Your task to perform on an android device: open wifi settings Image 0: 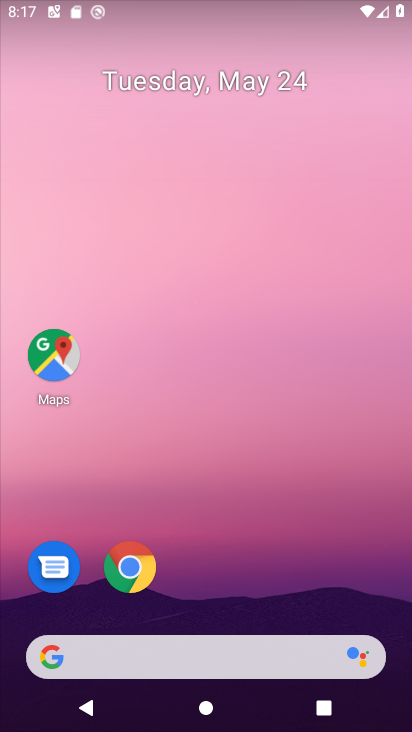
Step 0: drag from (286, 555) to (223, 71)
Your task to perform on an android device: open wifi settings Image 1: 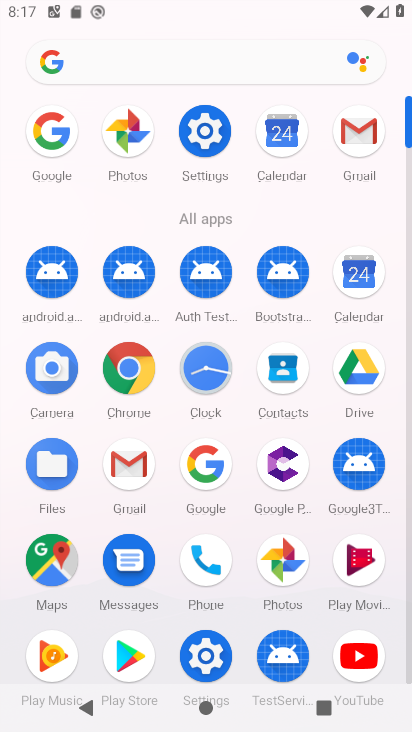
Step 1: click (204, 135)
Your task to perform on an android device: open wifi settings Image 2: 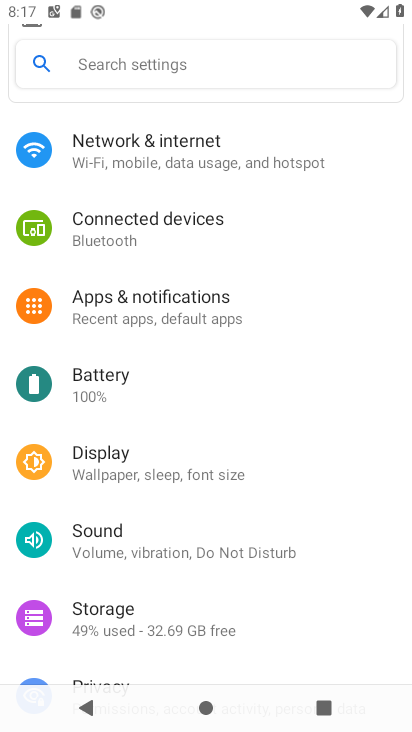
Step 2: click (204, 152)
Your task to perform on an android device: open wifi settings Image 3: 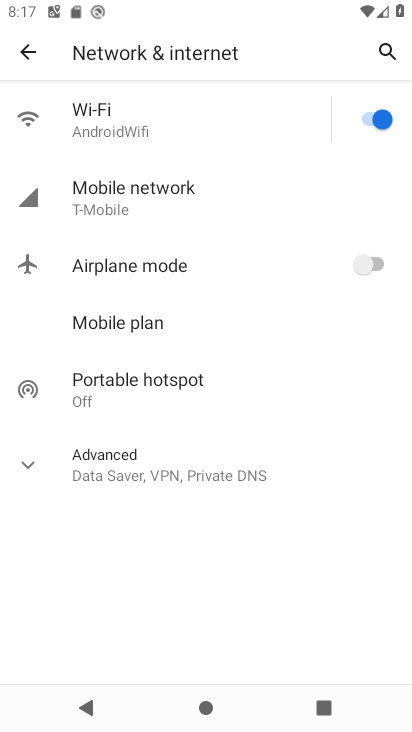
Step 3: click (208, 132)
Your task to perform on an android device: open wifi settings Image 4: 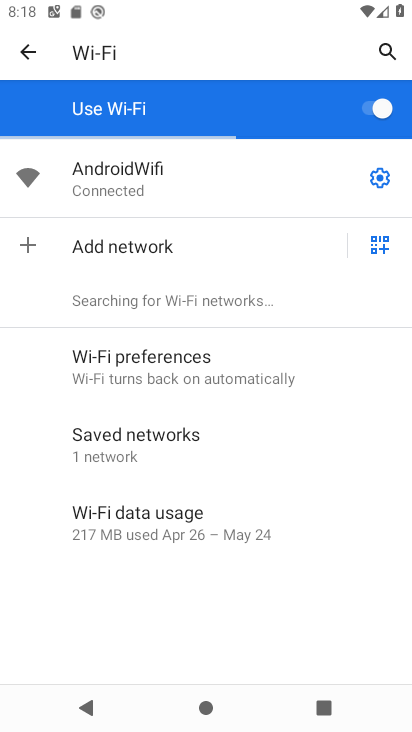
Step 4: task complete